Your task to perform on an android device: find snoozed emails in the gmail app Image 0: 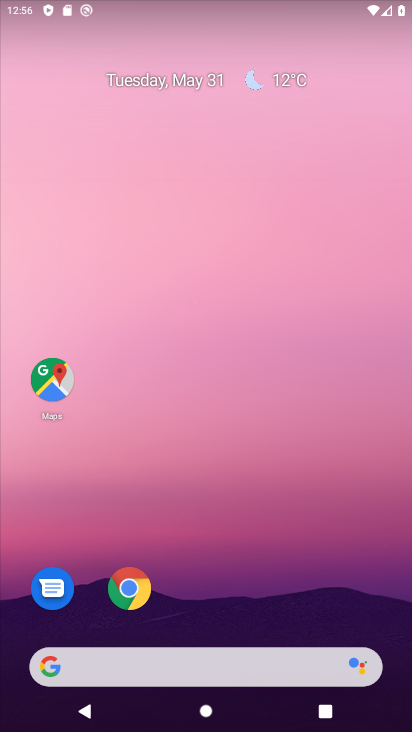
Step 0: click (327, 158)
Your task to perform on an android device: find snoozed emails in the gmail app Image 1: 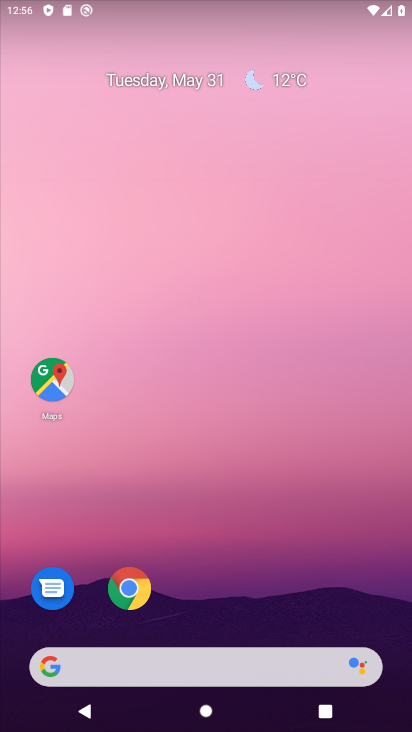
Step 1: drag from (397, 712) to (311, 86)
Your task to perform on an android device: find snoozed emails in the gmail app Image 2: 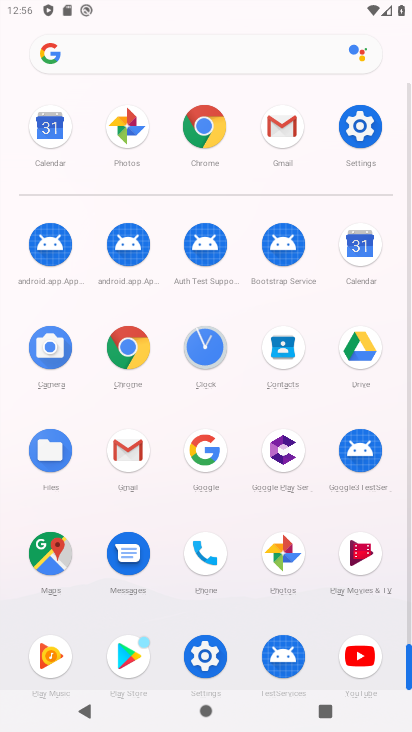
Step 2: click (279, 122)
Your task to perform on an android device: find snoozed emails in the gmail app Image 3: 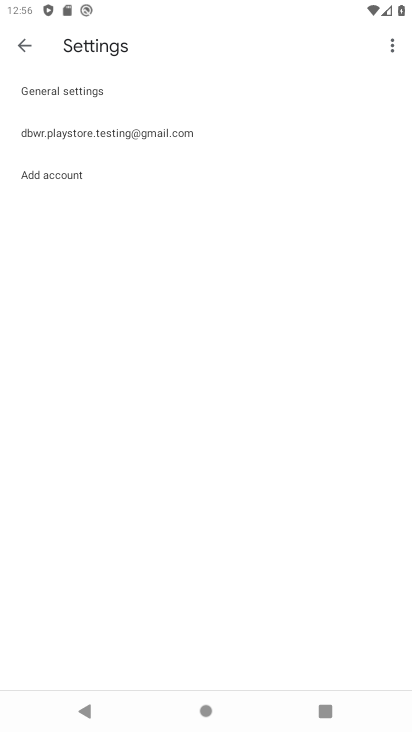
Step 3: click (22, 46)
Your task to perform on an android device: find snoozed emails in the gmail app Image 4: 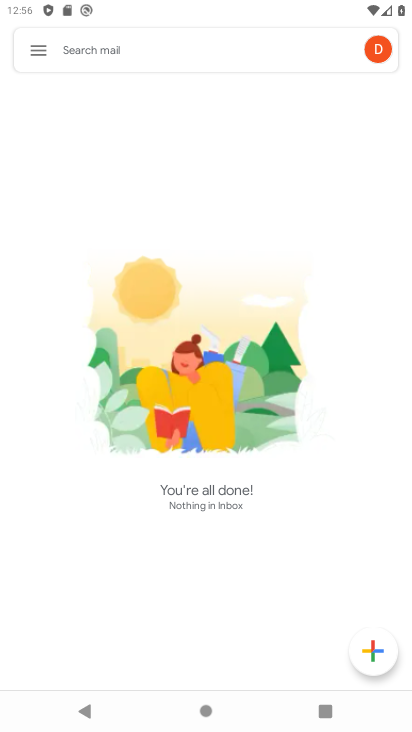
Step 4: click (41, 58)
Your task to perform on an android device: find snoozed emails in the gmail app Image 5: 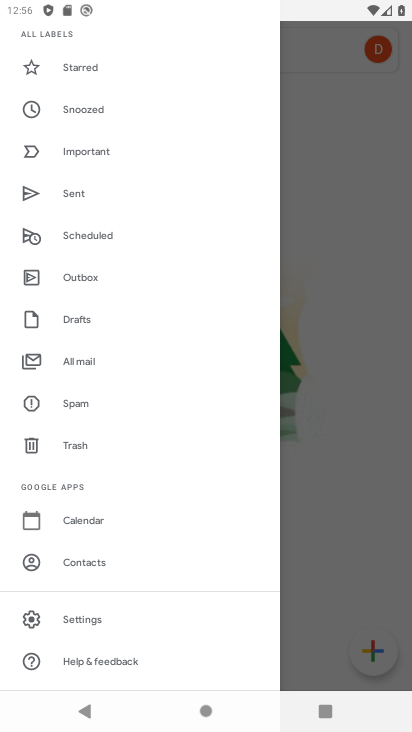
Step 5: click (80, 111)
Your task to perform on an android device: find snoozed emails in the gmail app Image 6: 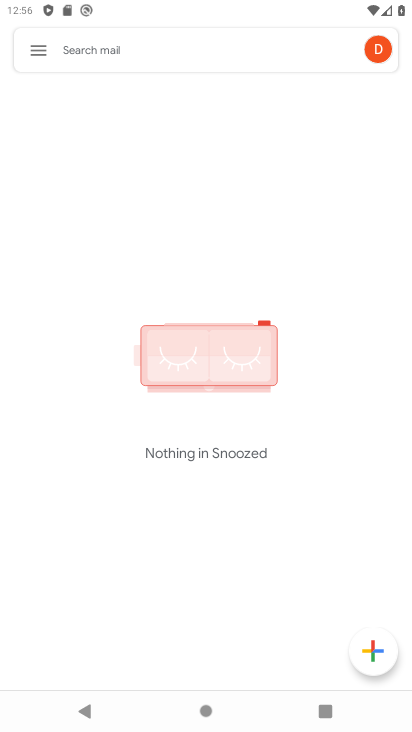
Step 6: task complete